Your task to perform on an android device: Go to sound settings Image 0: 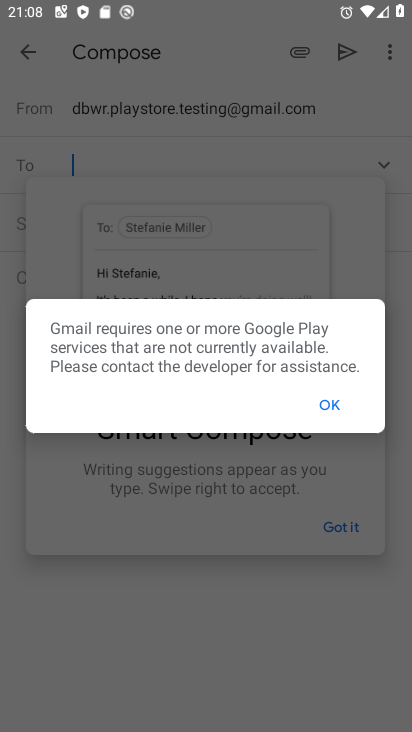
Step 0: press home button
Your task to perform on an android device: Go to sound settings Image 1: 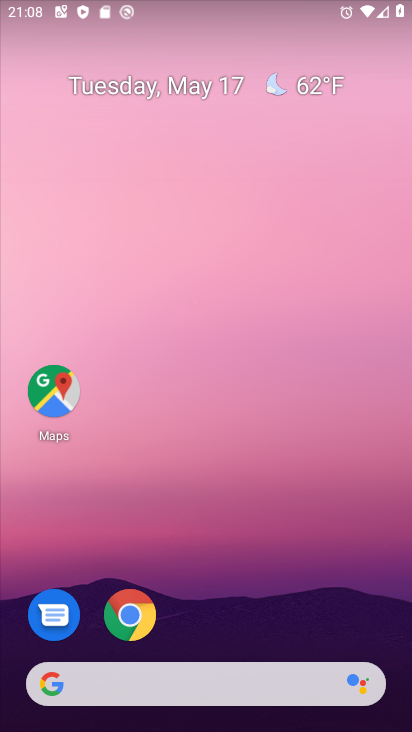
Step 1: drag from (283, 577) to (310, 1)
Your task to perform on an android device: Go to sound settings Image 2: 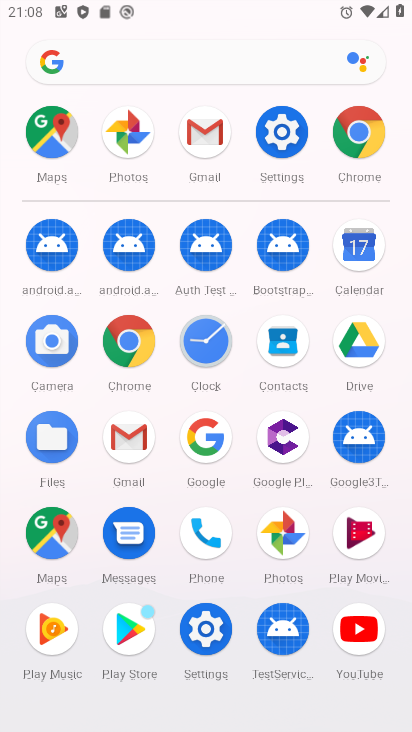
Step 2: click (263, 133)
Your task to perform on an android device: Go to sound settings Image 3: 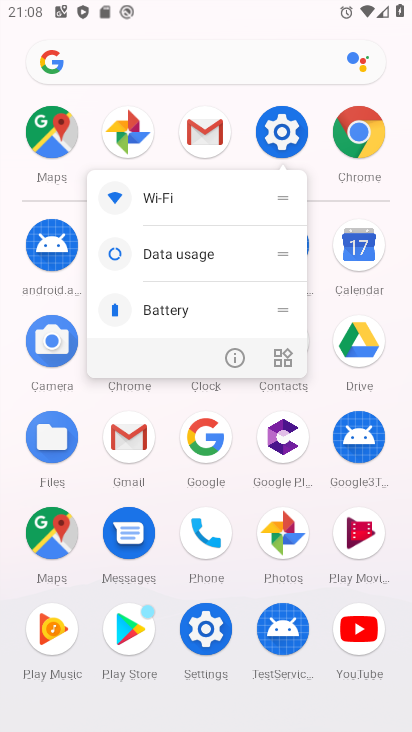
Step 3: click (283, 135)
Your task to perform on an android device: Go to sound settings Image 4: 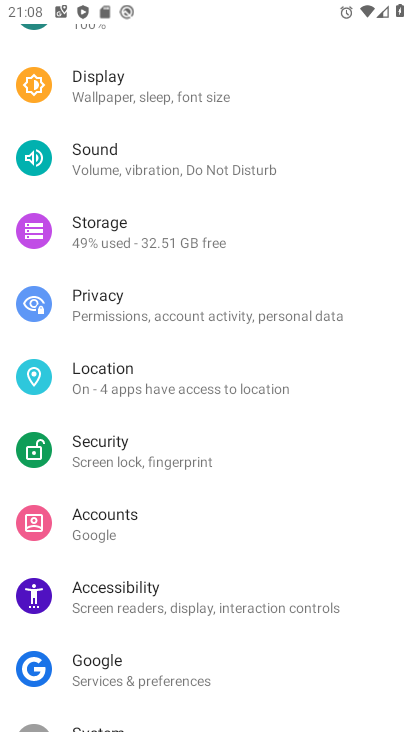
Step 4: click (107, 152)
Your task to perform on an android device: Go to sound settings Image 5: 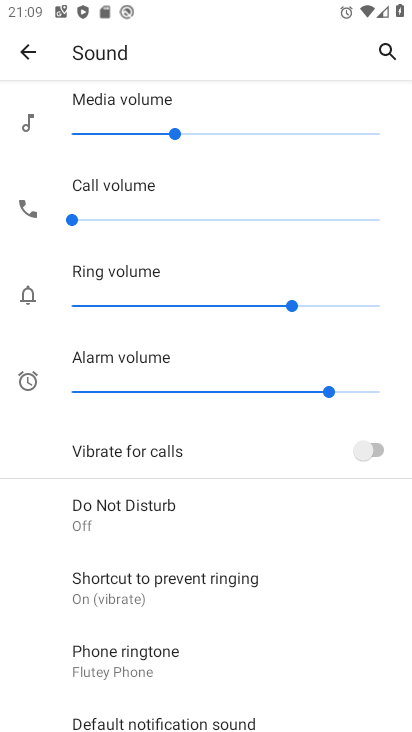
Step 5: task complete